Your task to perform on an android device: toggle show notifications on the lock screen Image 0: 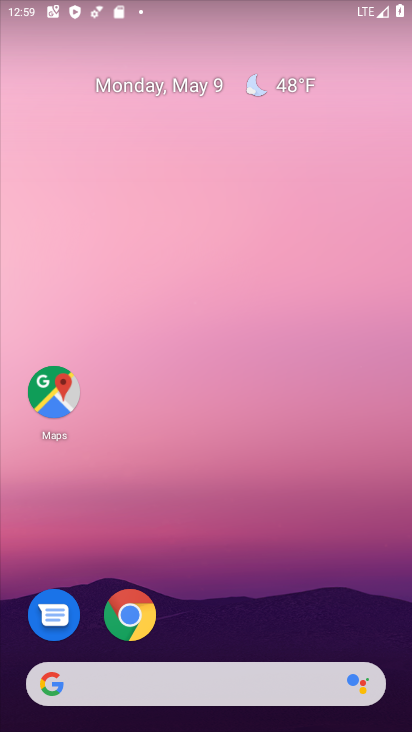
Step 0: drag from (374, 630) to (318, 29)
Your task to perform on an android device: toggle show notifications on the lock screen Image 1: 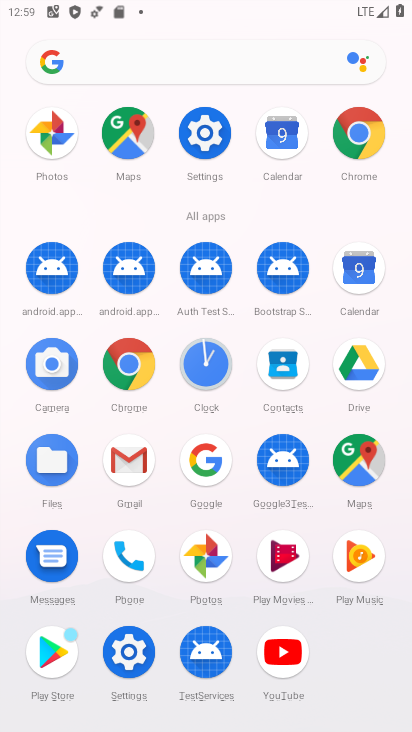
Step 1: click (128, 651)
Your task to perform on an android device: toggle show notifications on the lock screen Image 2: 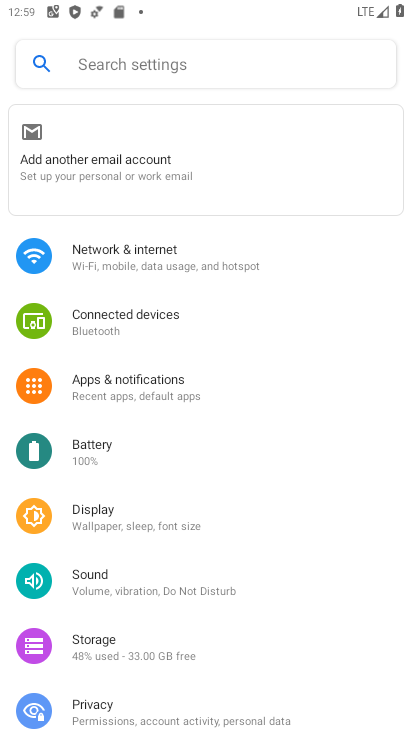
Step 2: click (131, 374)
Your task to perform on an android device: toggle show notifications on the lock screen Image 3: 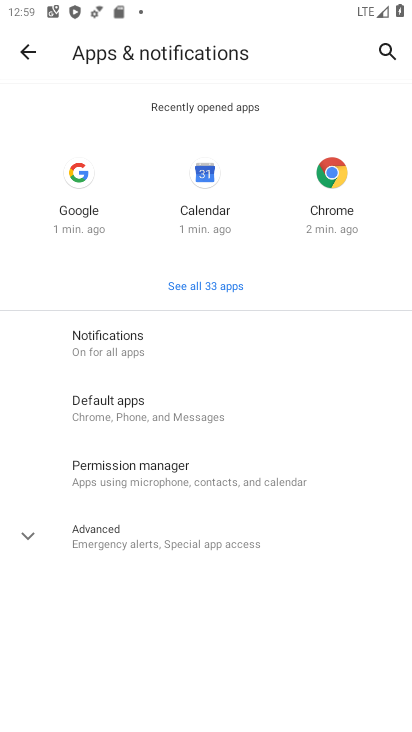
Step 3: click (97, 342)
Your task to perform on an android device: toggle show notifications on the lock screen Image 4: 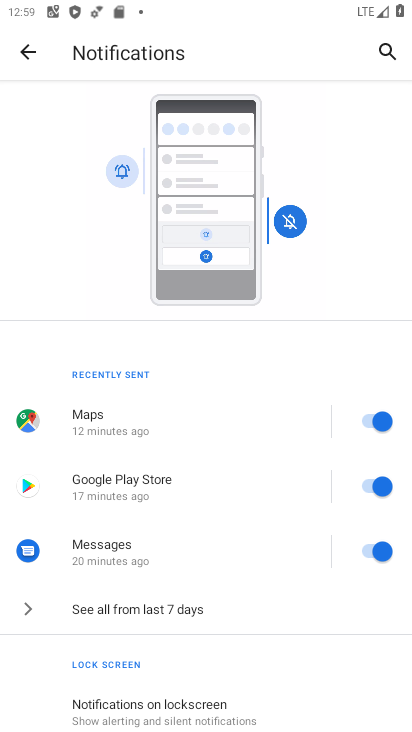
Step 4: drag from (233, 664) to (263, 140)
Your task to perform on an android device: toggle show notifications on the lock screen Image 5: 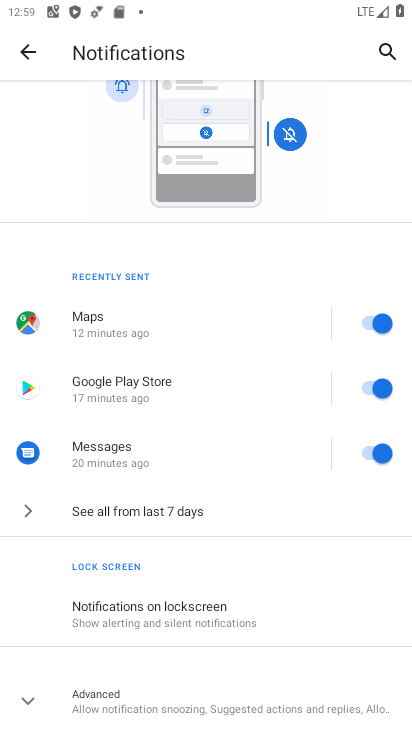
Step 5: click (102, 619)
Your task to perform on an android device: toggle show notifications on the lock screen Image 6: 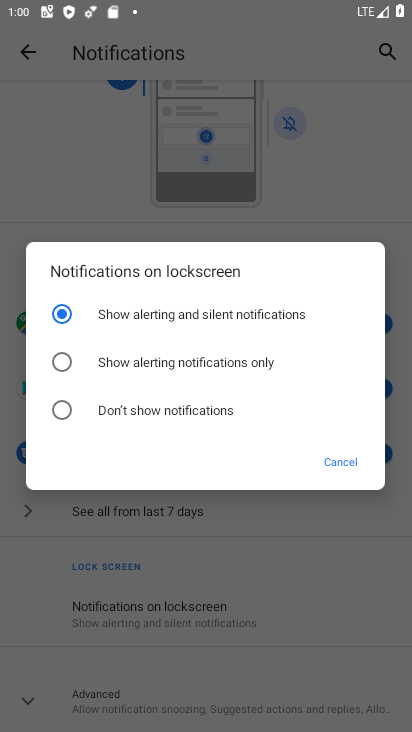
Step 6: task complete